Your task to perform on an android device: turn on bluetooth scan Image 0: 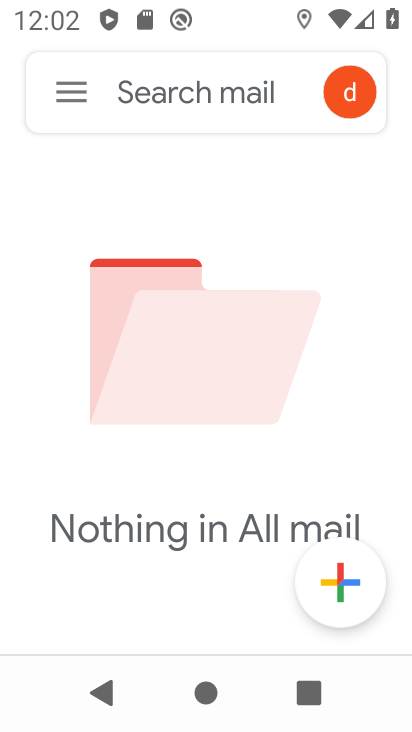
Step 0: press home button
Your task to perform on an android device: turn on bluetooth scan Image 1: 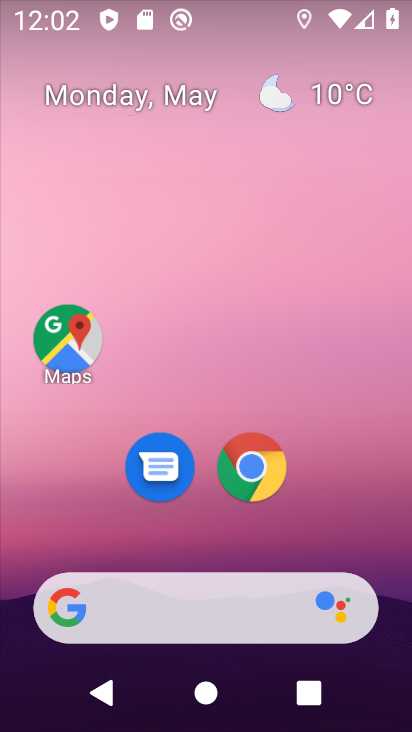
Step 1: drag from (372, 537) to (353, 127)
Your task to perform on an android device: turn on bluetooth scan Image 2: 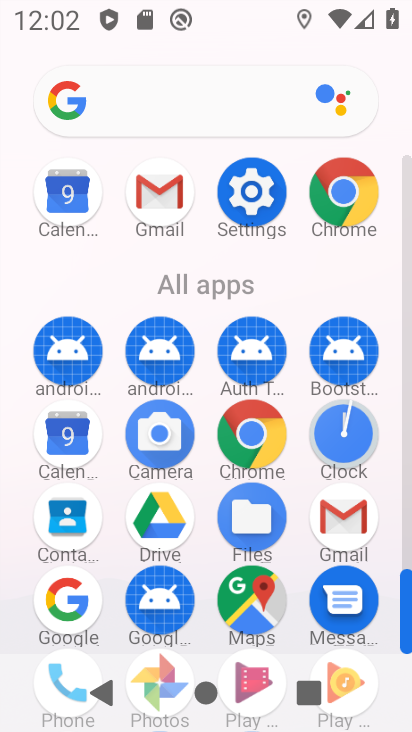
Step 2: click (274, 201)
Your task to perform on an android device: turn on bluetooth scan Image 3: 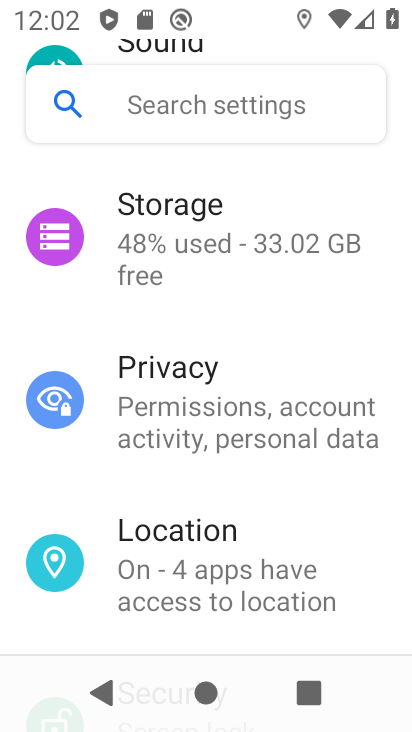
Step 3: click (247, 547)
Your task to perform on an android device: turn on bluetooth scan Image 4: 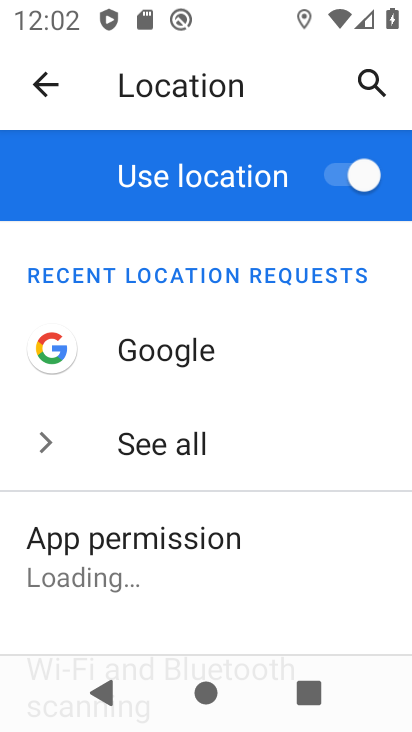
Step 4: drag from (339, 564) to (302, 217)
Your task to perform on an android device: turn on bluetooth scan Image 5: 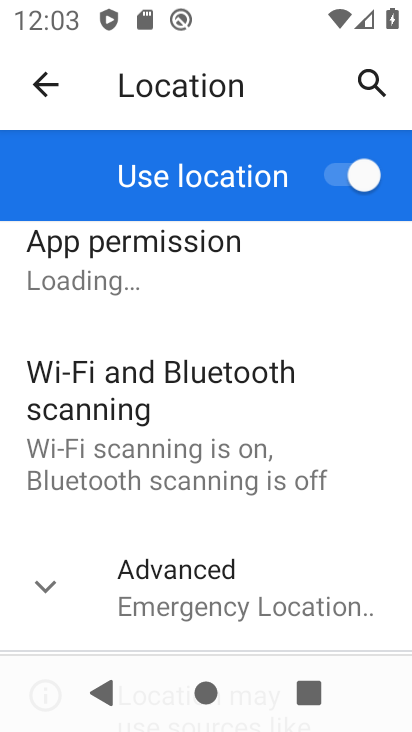
Step 5: drag from (336, 511) to (329, 298)
Your task to perform on an android device: turn on bluetooth scan Image 6: 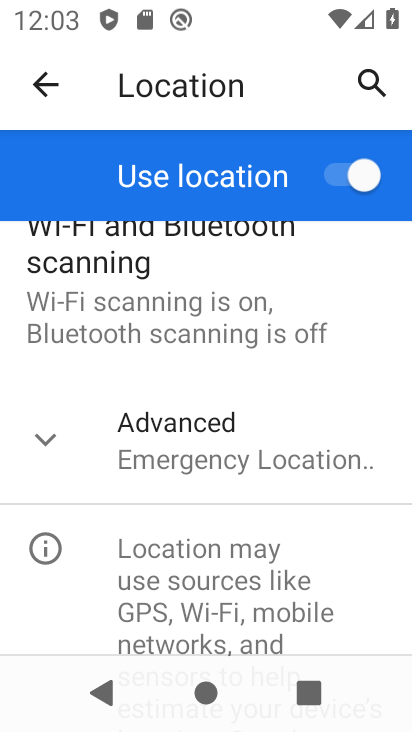
Step 6: click (272, 311)
Your task to perform on an android device: turn on bluetooth scan Image 7: 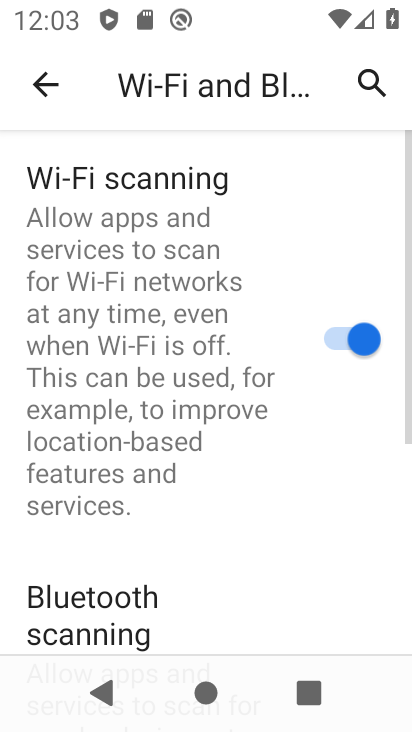
Step 7: drag from (273, 566) to (268, 333)
Your task to perform on an android device: turn on bluetooth scan Image 8: 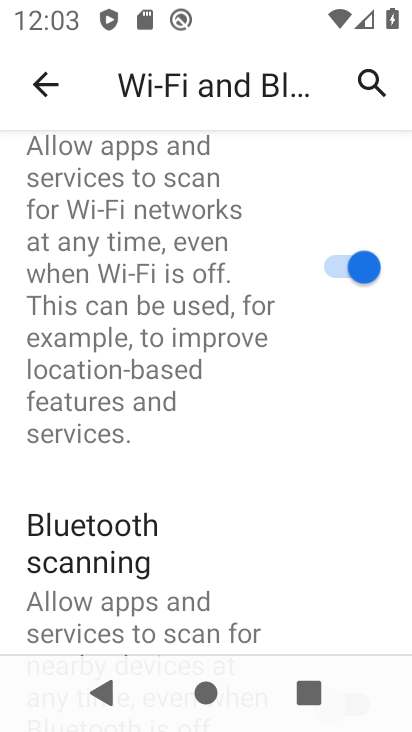
Step 8: drag from (293, 617) to (269, 235)
Your task to perform on an android device: turn on bluetooth scan Image 9: 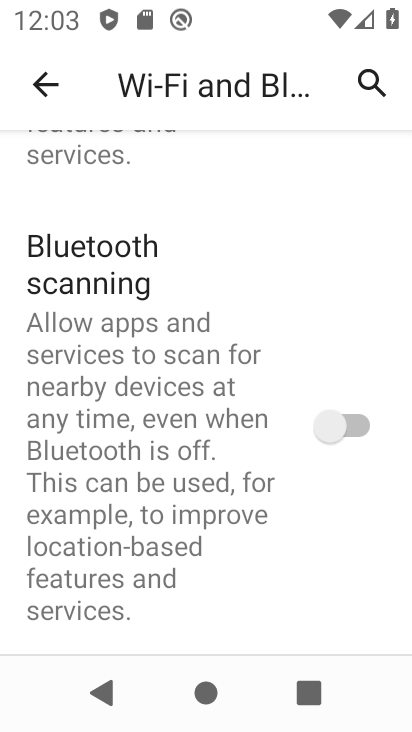
Step 9: click (350, 430)
Your task to perform on an android device: turn on bluetooth scan Image 10: 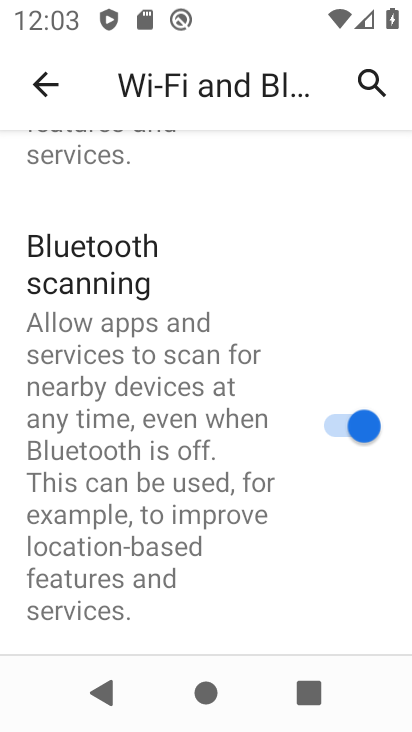
Step 10: task complete